Your task to perform on an android device: move a message to another label in the gmail app Image 0: 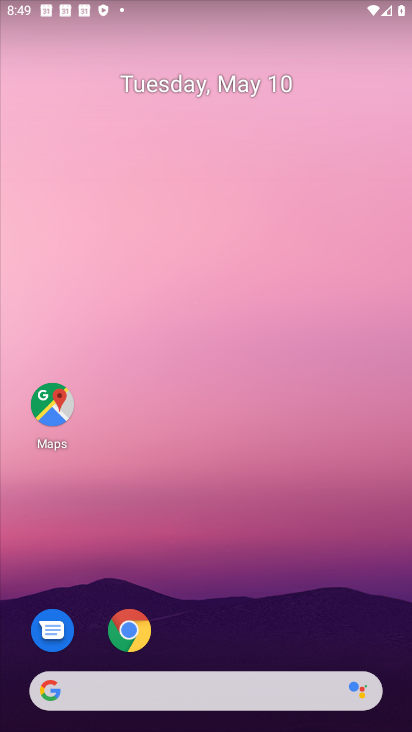
Step 0: drag from (175, 722) to (269, 36)
Your task to perform on an android device: move a message to another label in the gmail app Image 1: 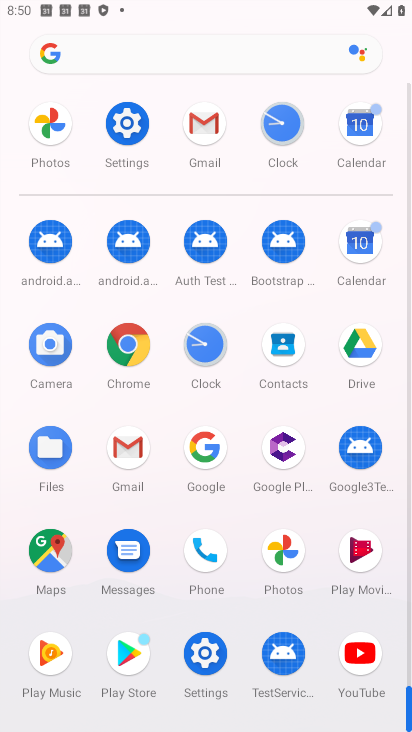
Step 1: click (212, 128)
Your task to perform on an android device: move a message to another label in the gmail app Image 2: 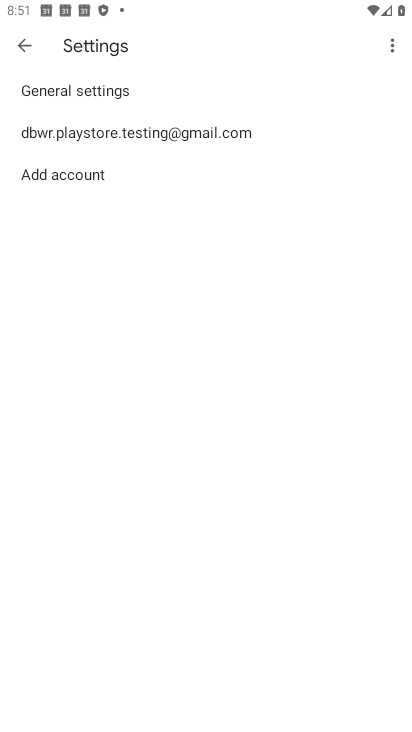
Step 2: click (103, 132)
Your task to perform on an android device: move a message to another label in the gmail app Image 3: 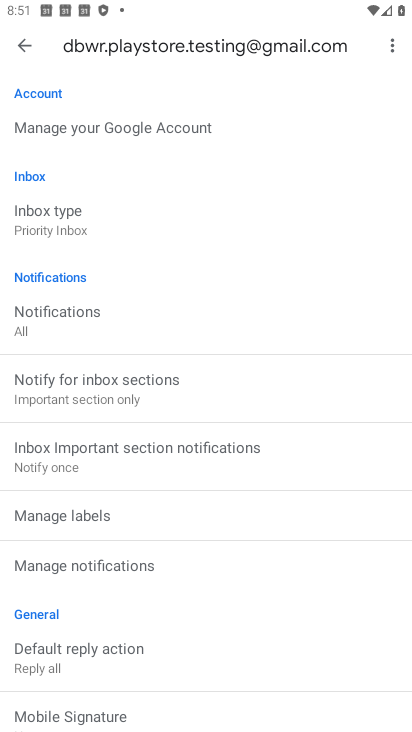
Step 3: click (28, 47)
Your task to perform on an android device: move a message to another label in the gmail app Image 4: 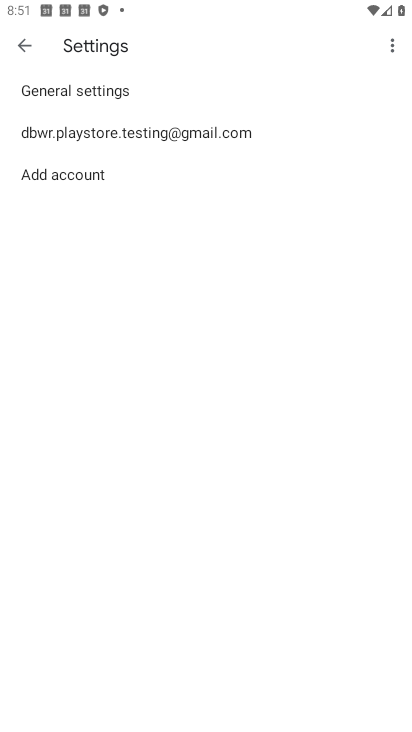
Step 4: click (28, 39)
Your task to perform on an android device: move a message to another label in the gmail app Image 5: 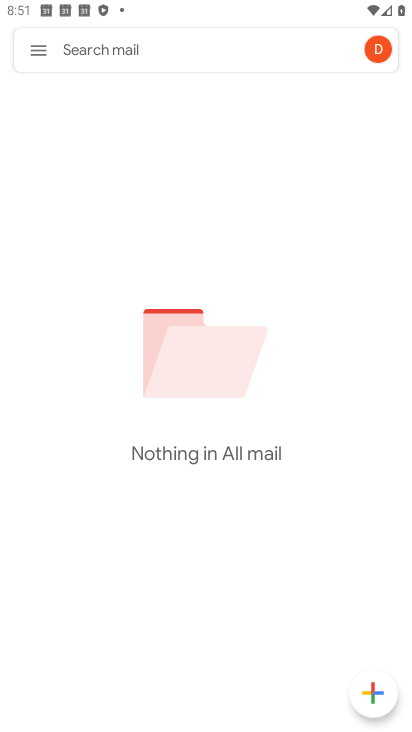
Step 5: click (37, 49)
Your task to perform on an android device: move a message to another label in the gmail app Image 6: 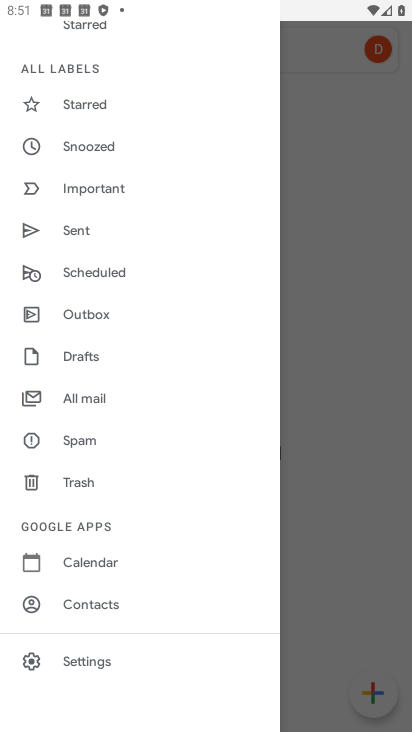
Step 6: click (95, 393)
Your task to perform on an android device: move a message to another label in the gmail app Image 7: 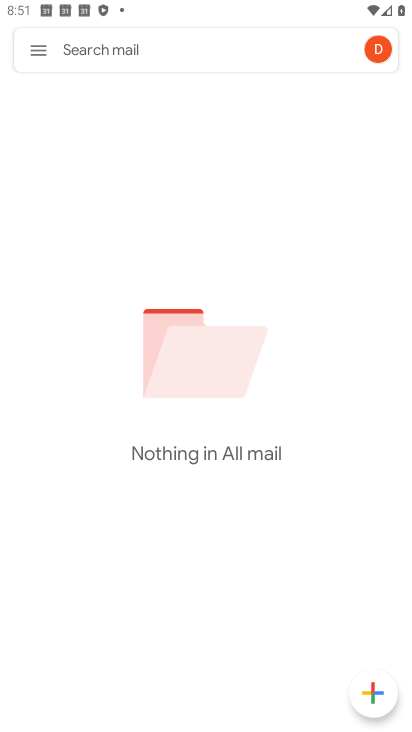
Step 7: task complete